Your task to perform on an android device: open chrome privacy settings Image 0: 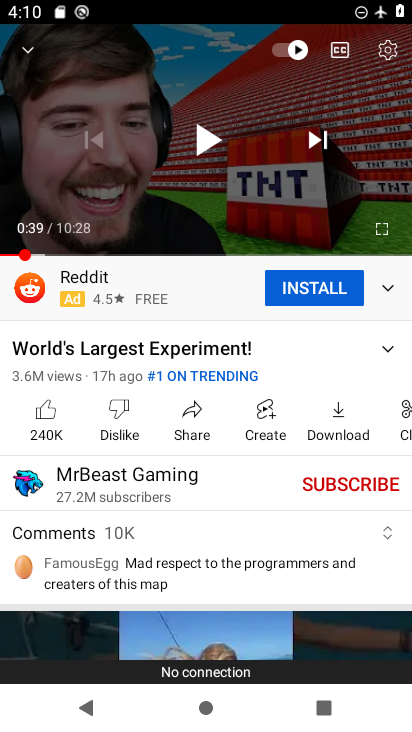
Step 0: press home button
Your task to perform on an android device: open chrome privacy settings Image 1: 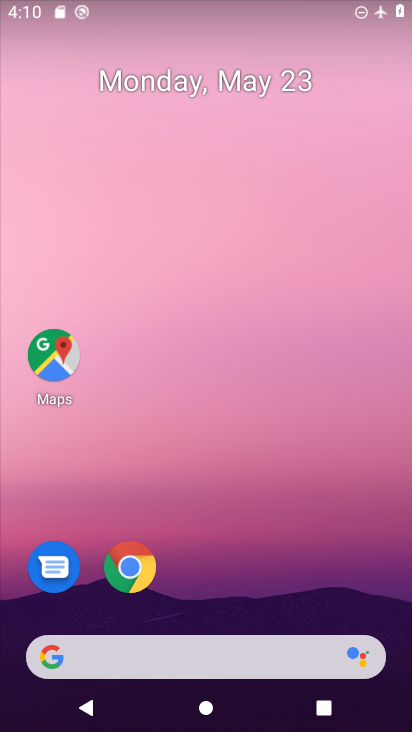
Step 1: click (136, 573)
Your task to perform on an android device: open chrome privacy settings Image 2: 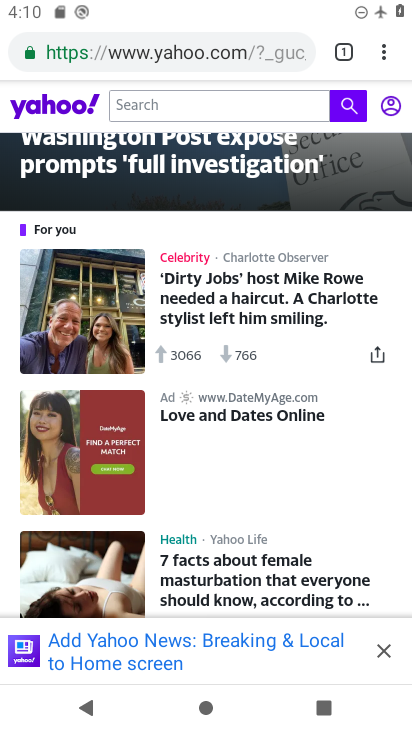
Step 2: click (385, 58)
Your task to perform on an android device: open chrome privacy settings Image 3: 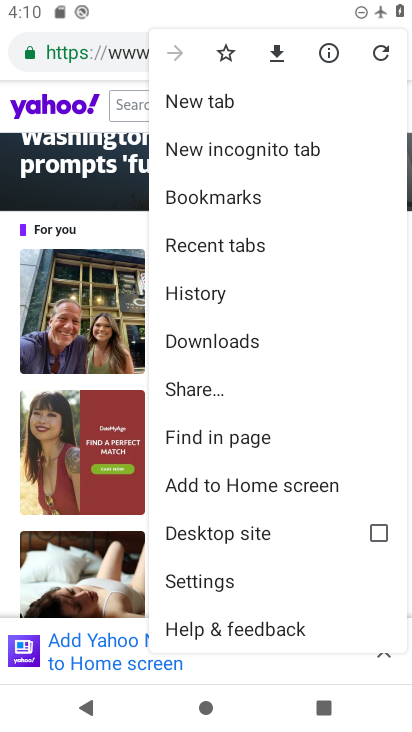
Step 3: drag from (261, 546) to (266, 256)
Your task to perform on an android device: open chrome privacy settings Image 4: 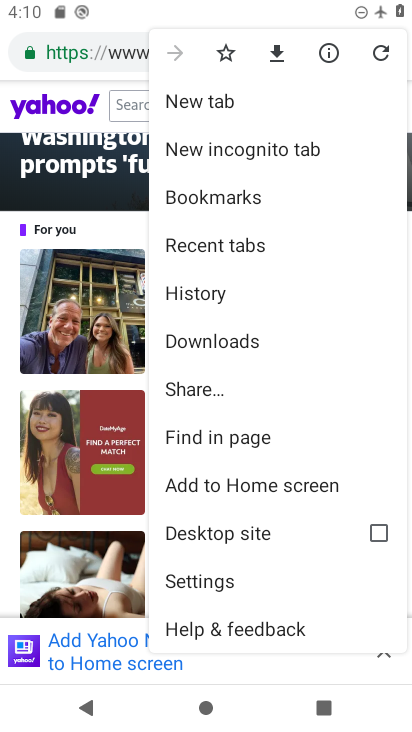
Step 4: click (194, 582)
Your task to perform on an android device: open chrome privacy settings Image 5: 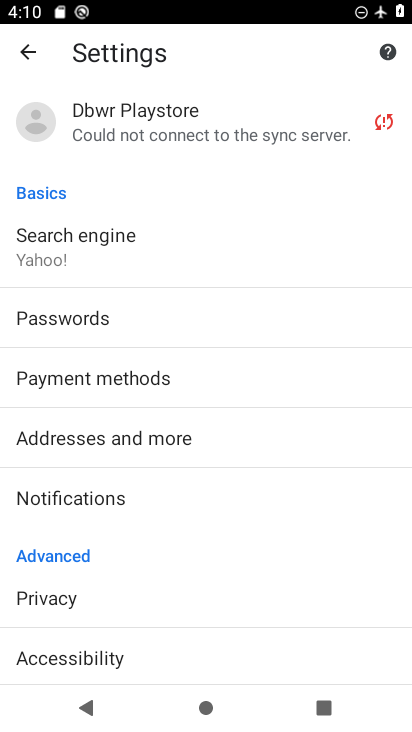
Step 5: click (58, 583)
Your task to perform on an android device: open chrome privacy settings Image 6: 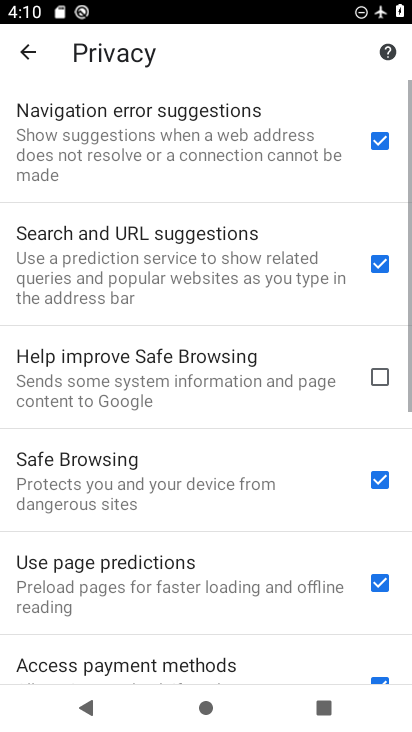
Step 6: task complete